Your task to perform on an android device: Open notification settings Image 0: 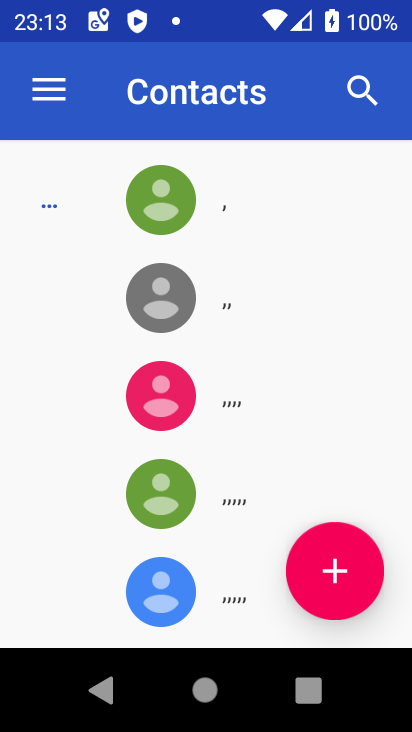
Step 0: press home button
Your task to perform on an android device: Open notification settings Image 1: 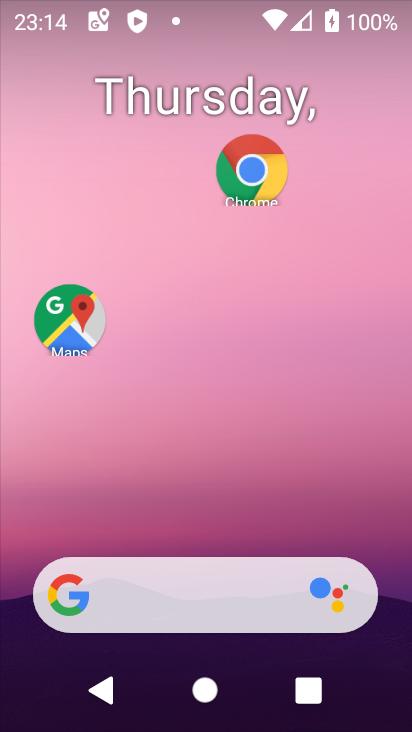
Step 1: drag from (114, 547) to (240, 192)
Your task to perform on an android device: Open notification settings Image 2: 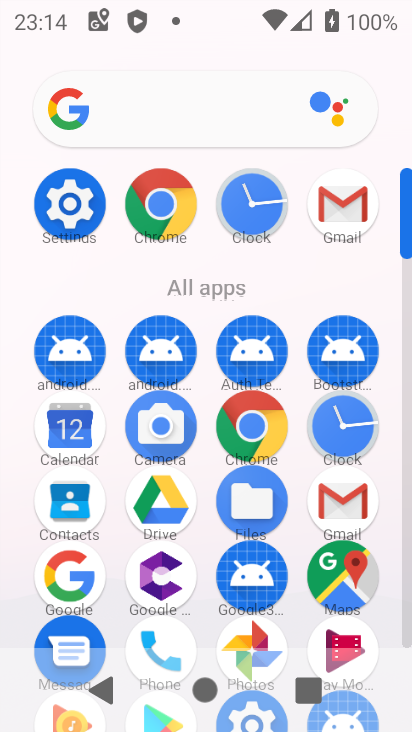
Step 2: click (41, 194)
Your task to perform on an android device: Open notification settings Image 3: 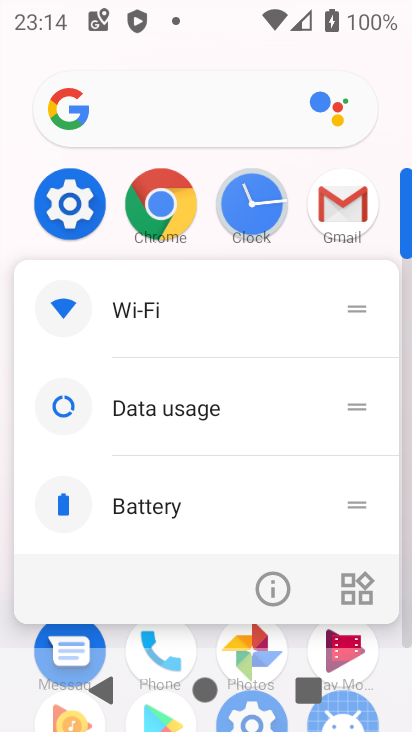
Step 3: click (52, 207)
Your task to perform on an android device: Open notification settings Image 4: 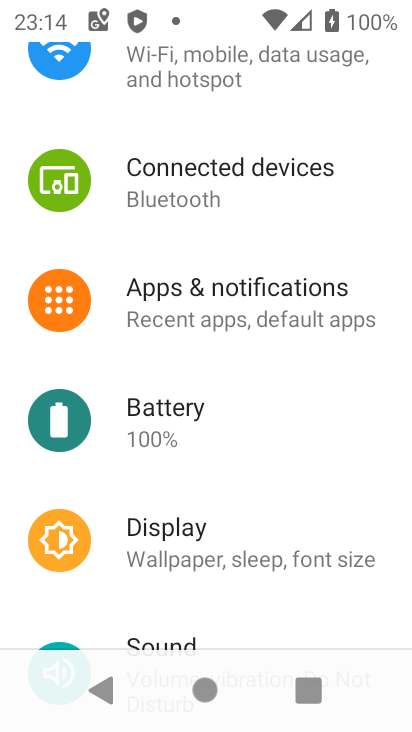
Step 4: click (136, 302)
Your task to perform on an android device: Open notification settings Image 5: 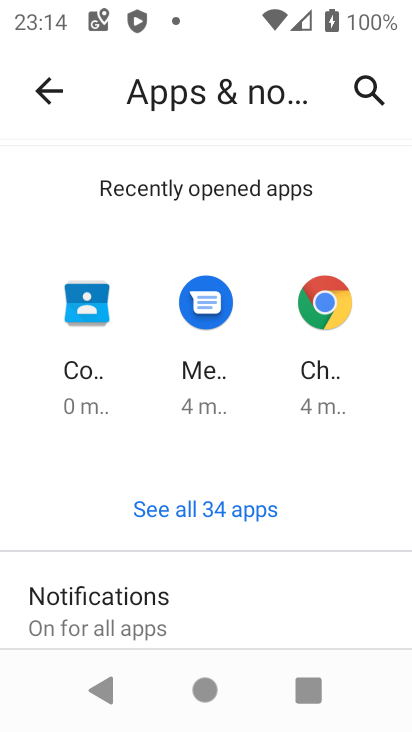
Step 5: drag from (176, 618) to (282, 284)
Your task to perform on an android device: Open notification settings Image 6: 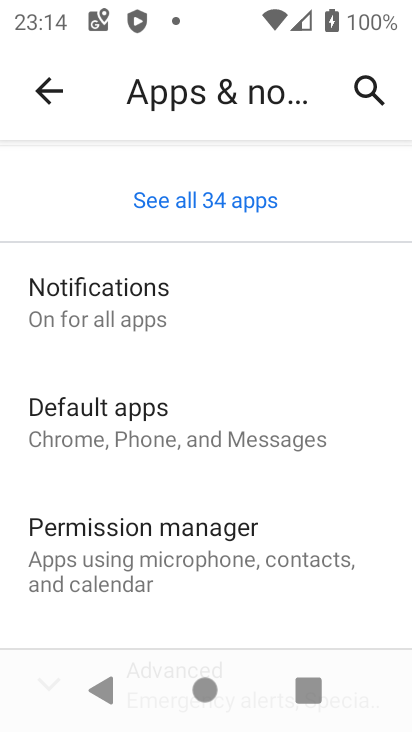
Step 6: drag from (174, 576) to (272, 263)
Your task to perform on an android device: Open notification settings Image 7: 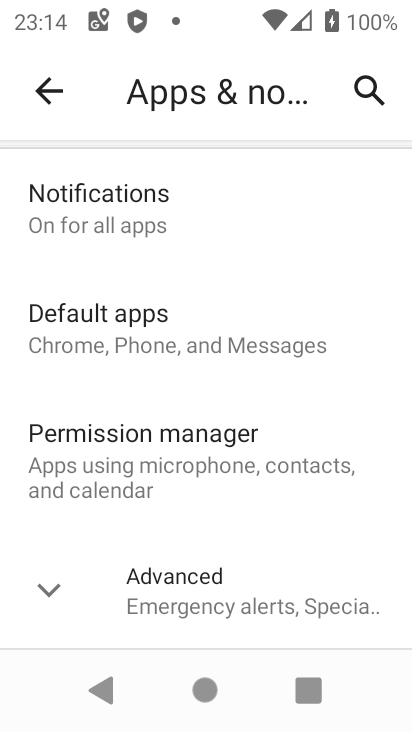
Step 7: click (166, 585)
Your task to perform on an android device: Open notification settings Image 8: 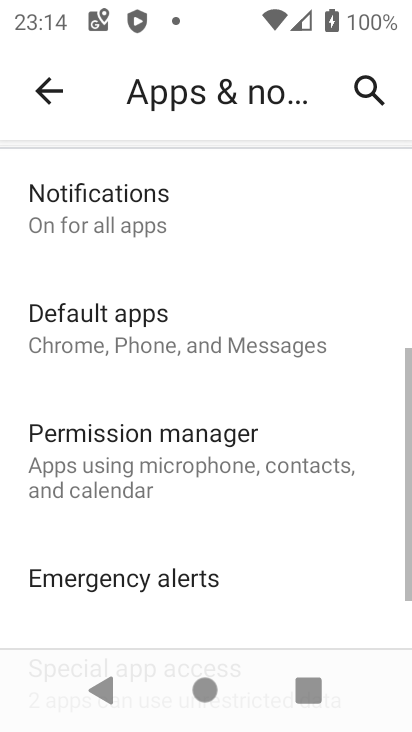
Step 8: task complete